Your task to perform on an android device: Open the stopwatch Image 0: 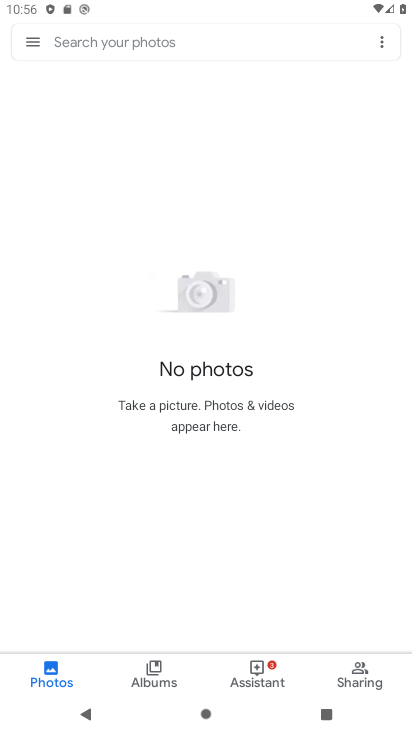
Step 0: press home button
Your task to perform on an android device: Open the stopwatch Image 1: 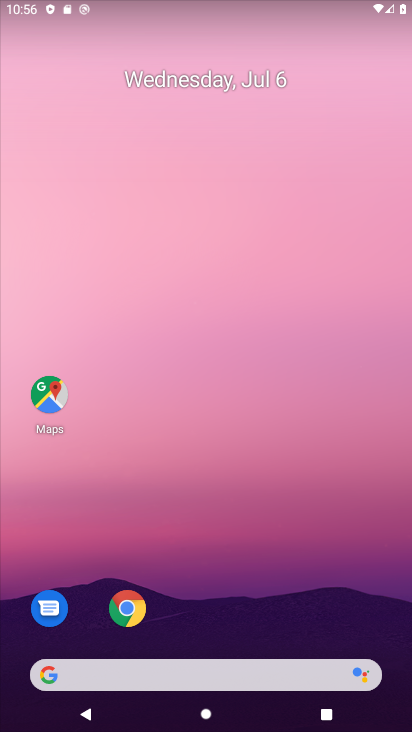
Step 1: drag from (205, 641) to (184, 124)
Your task to perform on an android device: Open the stopwatch Image 2: 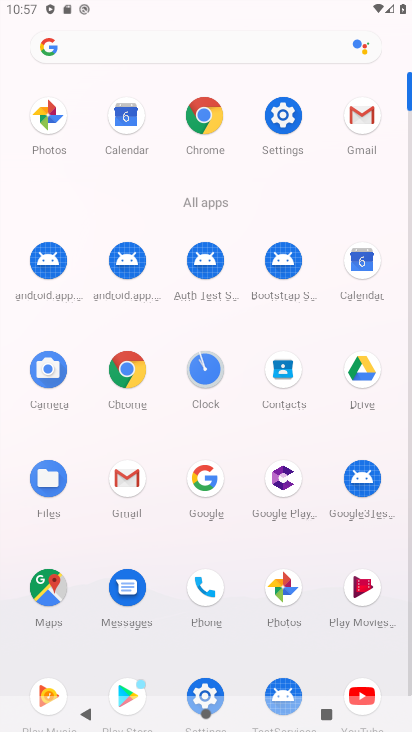
Step 2: click (211, 382)
Your task to perform on an android device: Open the stopwatch Image 3: 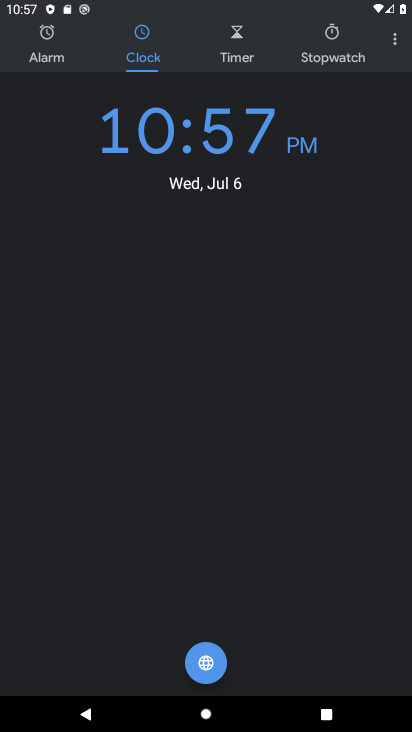
Step 3: click (348, 49)
Your task to perform on an android device: Open the stopwatch Image 4: 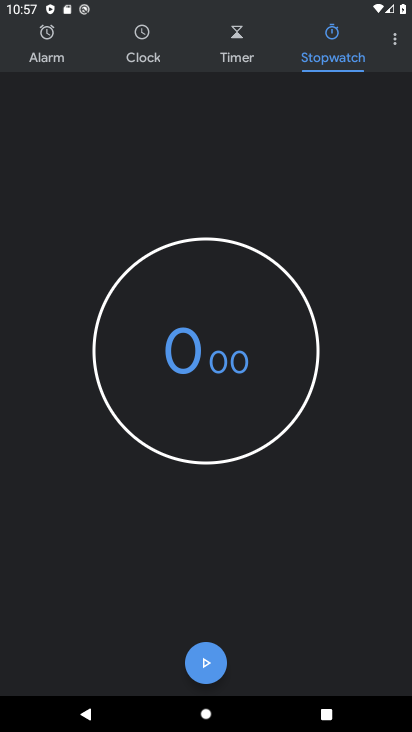
Step 4: task complete